Your task to perform on an android device: Go to Maps Image 0: 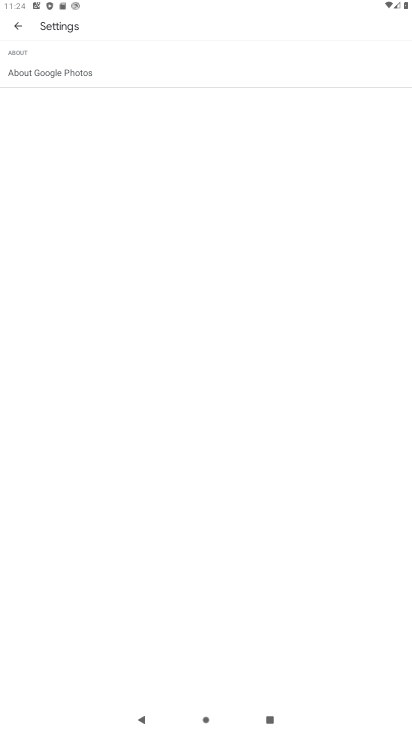
Step 0: press home button
Your task to perform on an android device: Go to Maps Image 1: 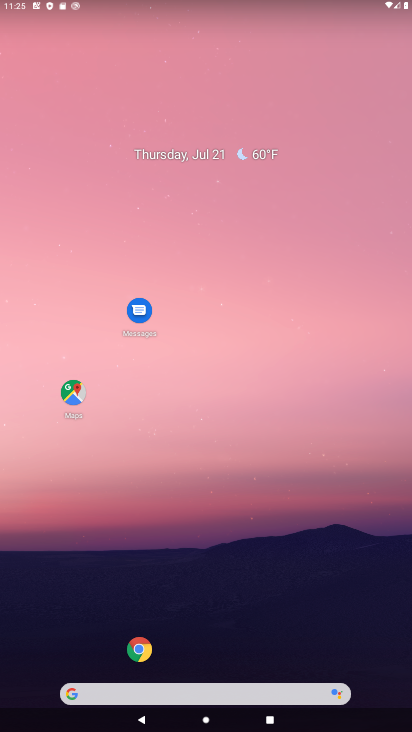
Step 1: click (75, 392)
Your task to perform on an android device: Go to Maps Image 2: 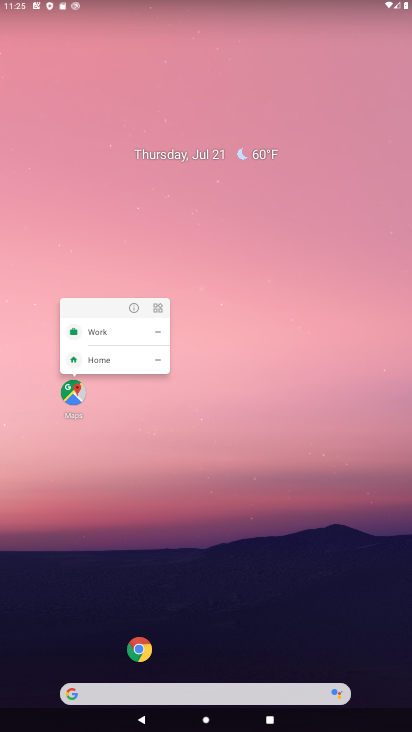
Step 2: click (68, 403)
Your task to perform on an android device: Go to Maps Image 3: 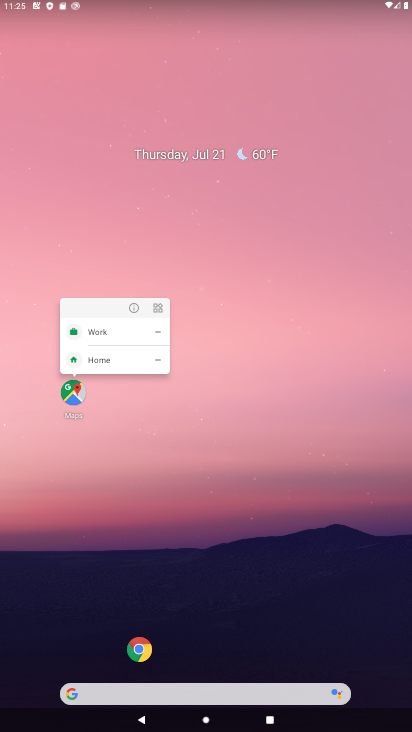
Step 3: click (57, 390)
Your task to perform on an android device: Go to Maps Image 4: 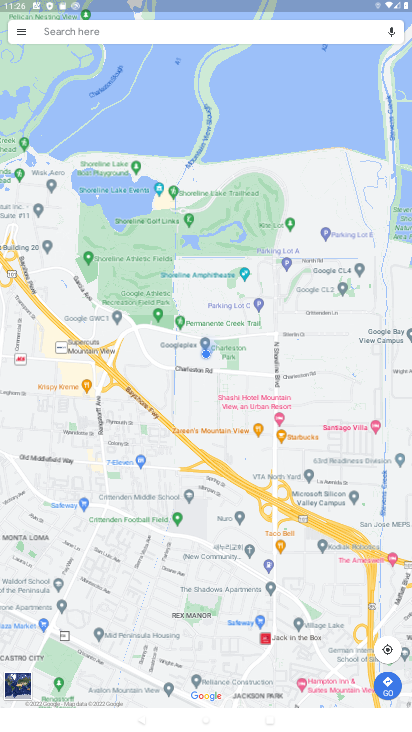
Step 4: click (76, 37)
Your task to perform on an android device: Go to Maps Image 5: 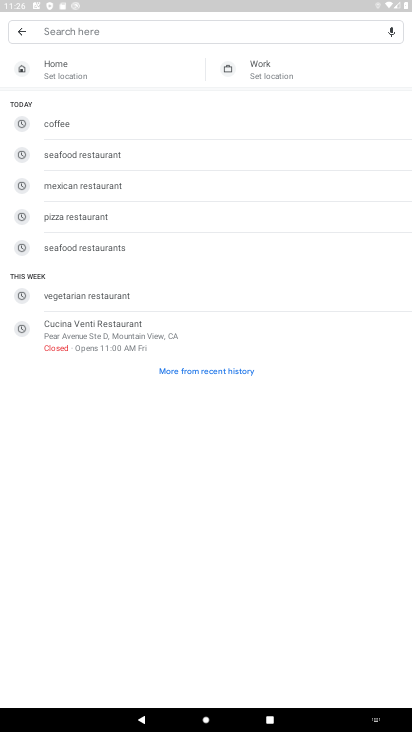
Step 5: click (25, 31)
Your task to perform on an android device: Go to Maps Image 6: 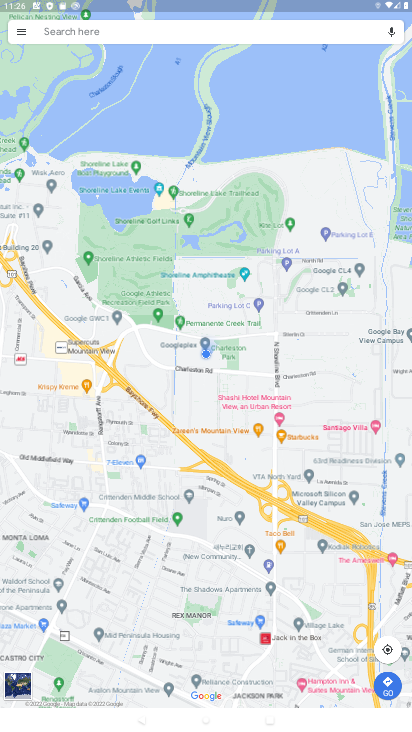
Step 6: task complete